Your task to perform on an android device: Open Chrome and go to settings Image 0: 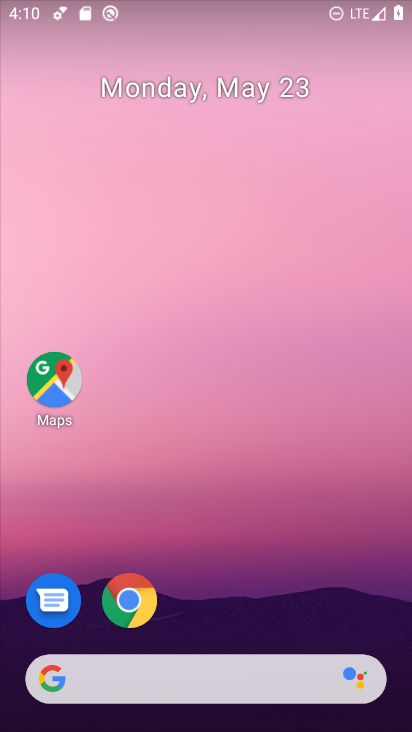
Step 0: click (134, 597)
Your task to perform on an android device: Open Chrome and go to settings Image 1: 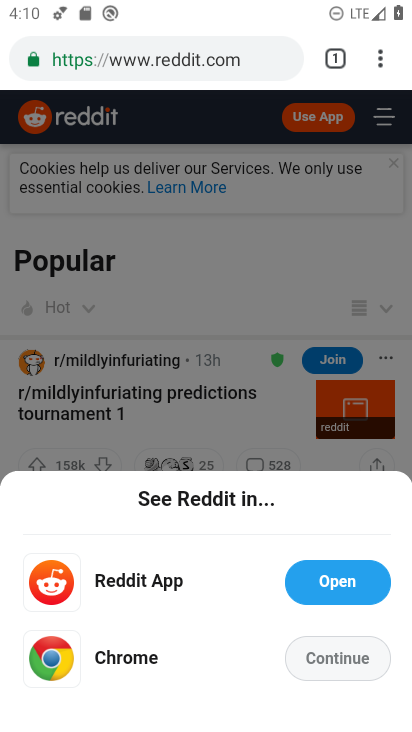
Step 1: click (380, 57)
Your task to perform on an android device: Open Chrome and go to settings Image 2: 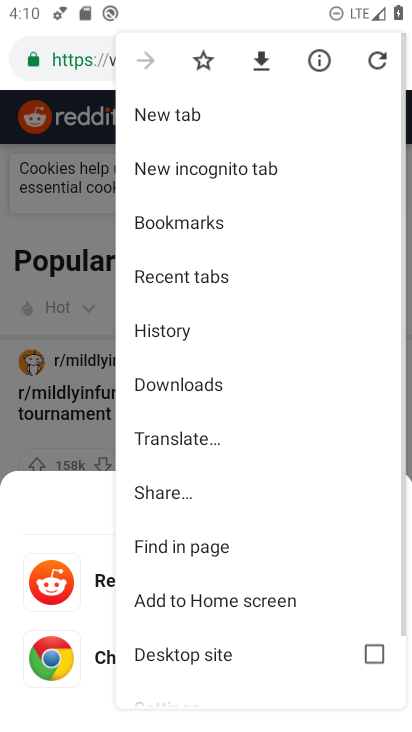
Step 2: drag from (246, 531) to (289, 171)
Your task to perform on an android device: Open Chrome and go to settings Image 3: 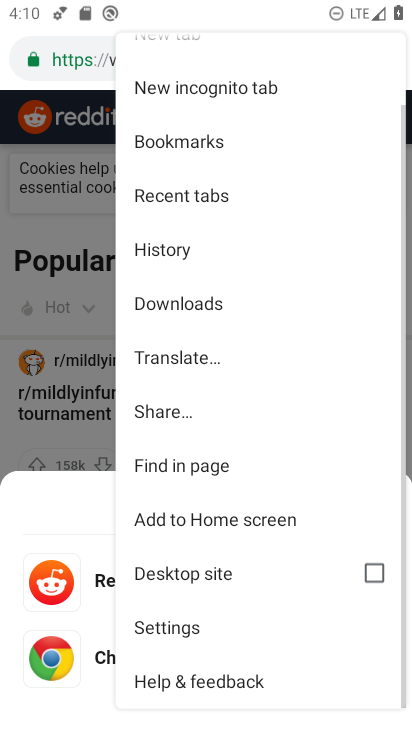
Step 3: click (183, 631)
Your task to perform on an android device: Open Chrome and go to settings Image 4: 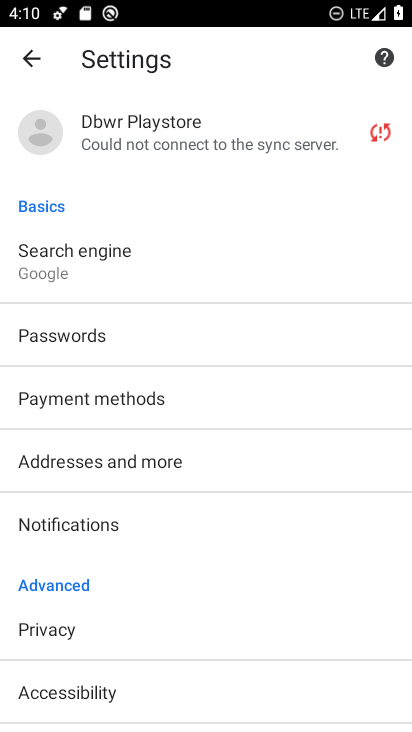
Step 4: task complete